Your task to perform on an android device: Open Google Image 0: 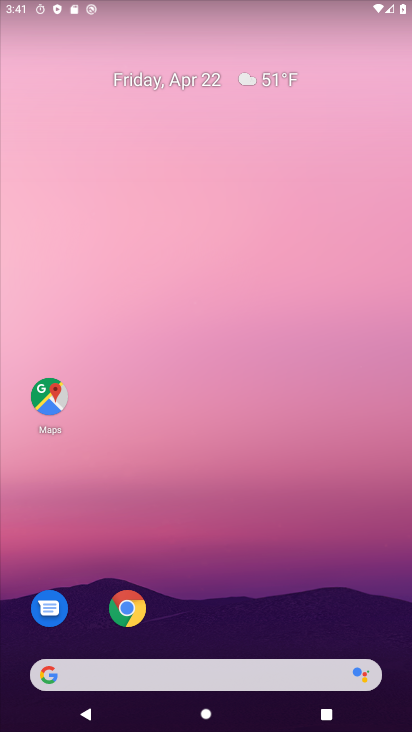
Step 0: drag from (238, 588) to (165, 63)
Your task to perform on an android device: Open Google Image 1: 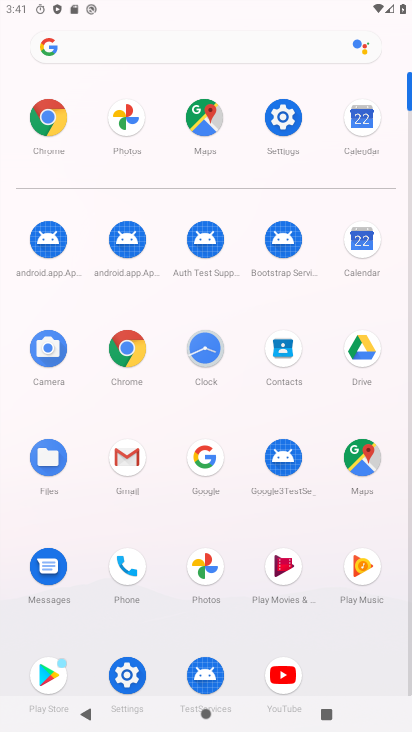
Step 1: click (202, 465)
Your task to perform on an android device: Open Google Image 2: 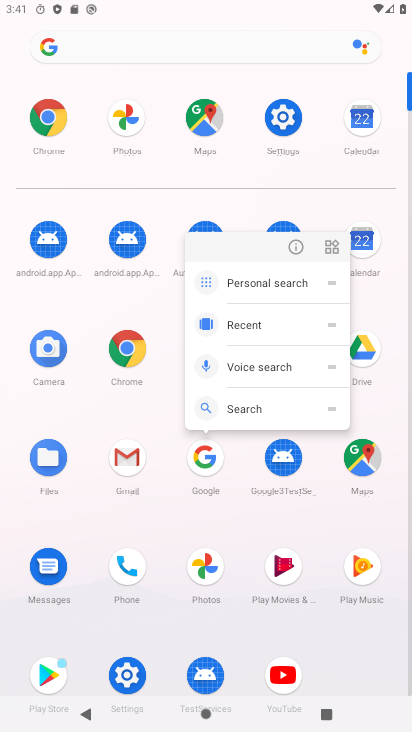
Step 2: click (205, 465)
Your task to perform on an android device: Open Google Image 3: 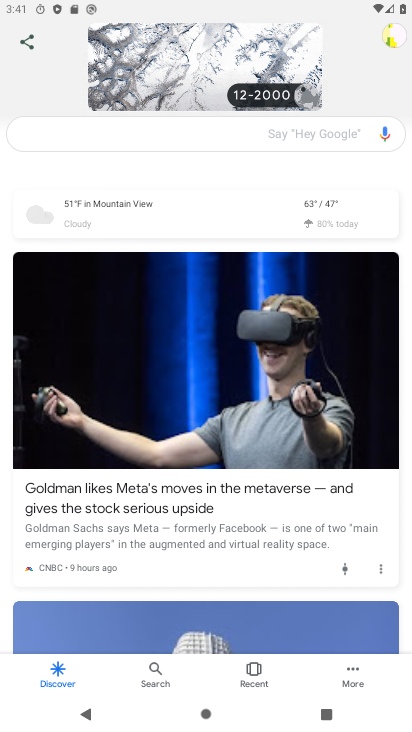
Step 3: click (207, 140)
Your task to perform on an android device: Open Google Image 4: 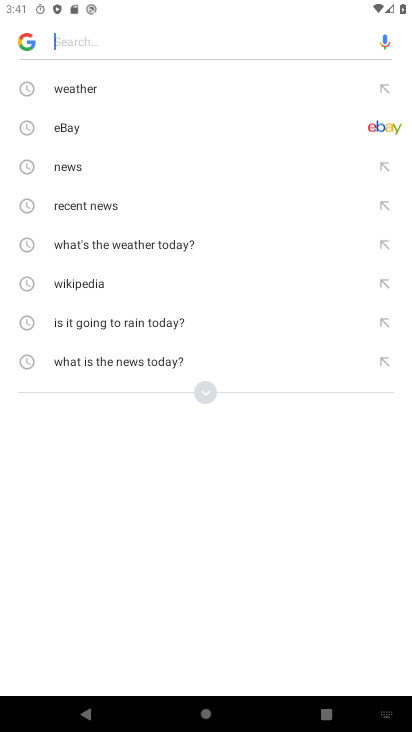
Step 4: task complete